Your task to perform on an android device: clear history in the chrome app Image 0: 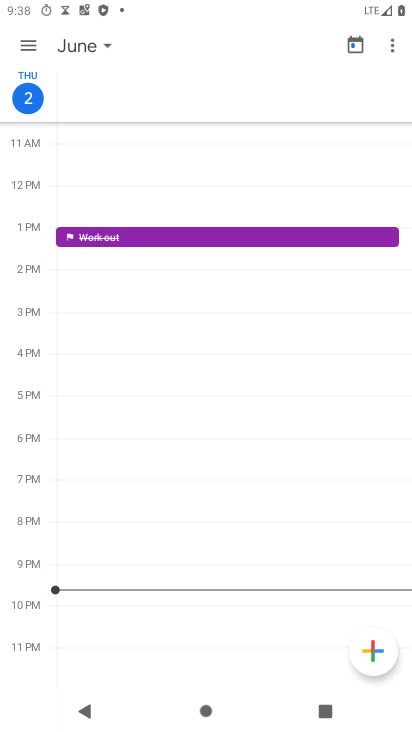
Step 0: press back button
Your task to perform on an android device: clear history in the chrome app Image 1: 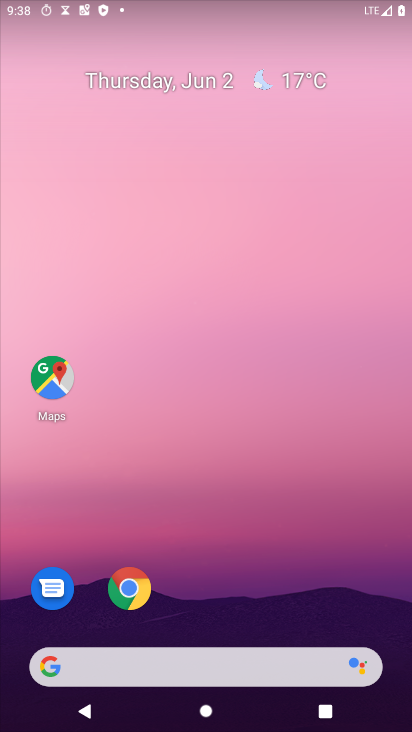
Step 1: click (126, 593)
Your task to perform on an android device: clear history in the chrome app Image 2: 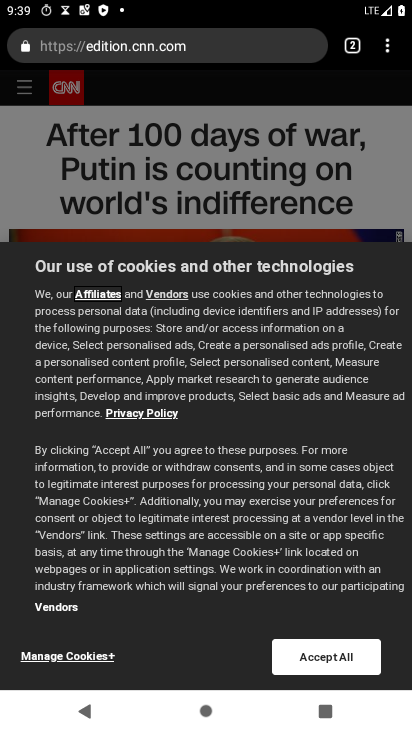
Step 2: drag from (386, 44) to (248, 255)
Your task to perform on an android device: clear history in the chrome app Image 3: 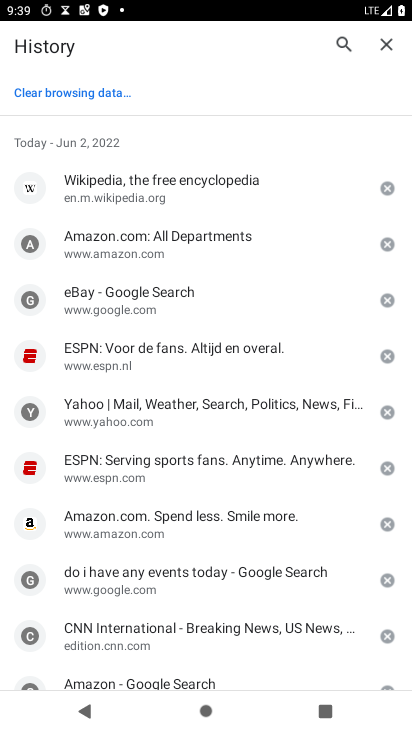
Step 3: click (75, 97)
Your task to perform on an android device: clear history in the chrome app Image 4: 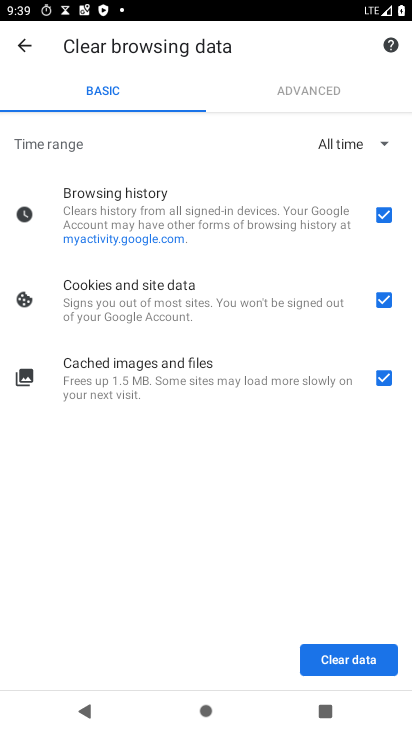
Step 4: click (369, 667)
Your task to perform on an android device: clear history in the chrome app Image 5: 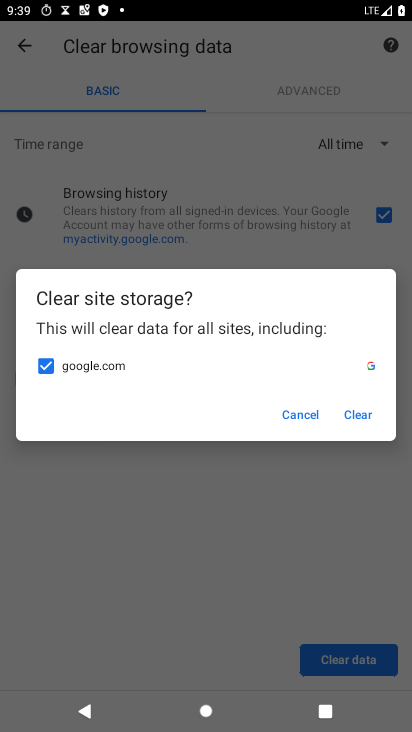
Step 5: click (363, 423)
Your task to perform on an android device: clear history in the chrome app Image 6: 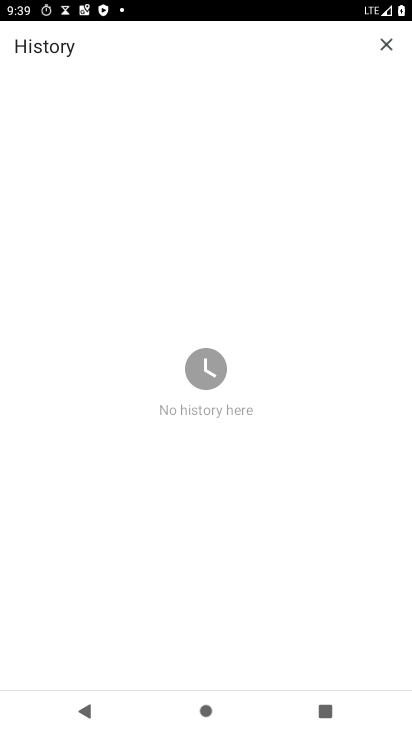
Step 6: task complete